Your task to perform on an android device: turn off data saver in the chrome app Image 0: 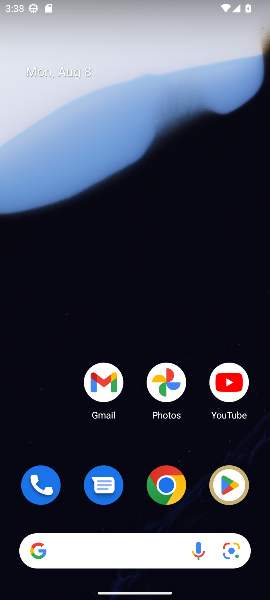
Step 0: drag from (83, 154) to (82, 120)
Your task to perform on an android device: turn off data saver in the chrome app Image 1: 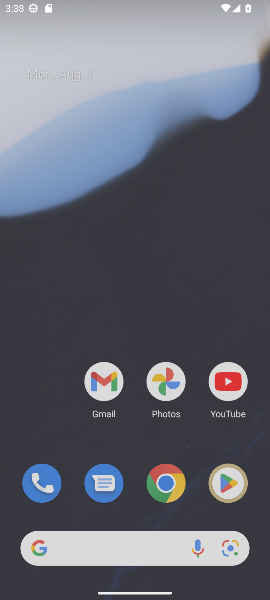
Step 1: click (136, 70)
Your task to perform on an android device: turn off data saver in the chrome app Image 2: 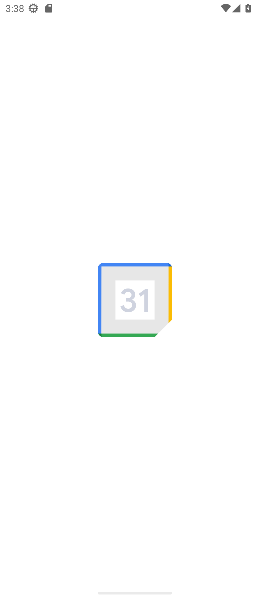
Step 2: drag from (132, 508) to (132, 83)
Your task to perform on an android device: turn off data saver in the chrome app Image 3: 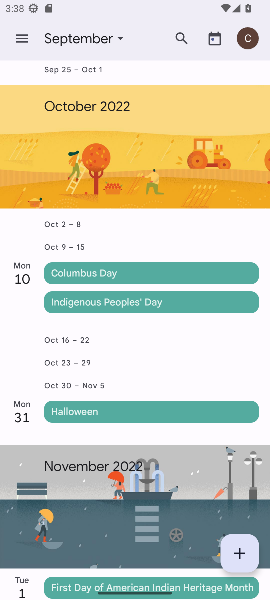
Step 3: press back button
Your task to perform on an android device: turn off data saver in the chrome app Image 4: 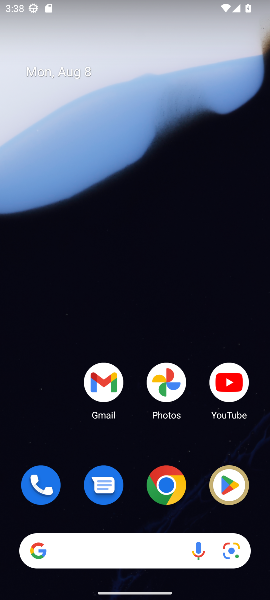
Step 4: drag from (152, 313) to (102, 42)
Your task to perform on an android device: turn off data saver in the chrome app Image 5: 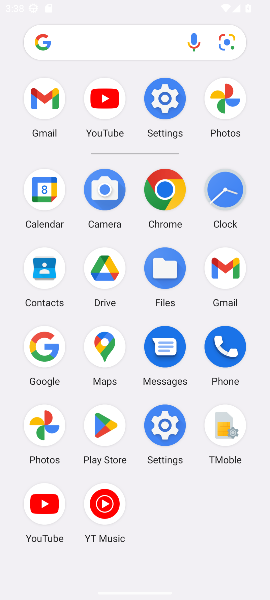
Step 5: drag from (146, 355) to (113, 36)
Your task to perform on an android device: turn off data saver in the chrome app Image 6: 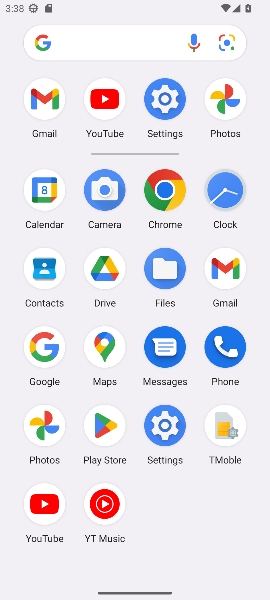
Step 6: click (158, 188)
Your task to perform on an android device: turn off data saver in the chrome app Image 7: 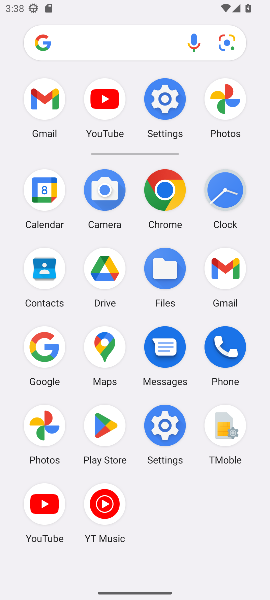
Step 7: click (160, 181)
Your task to perform on an android device: turn off data saver in the chrome app Image 8: 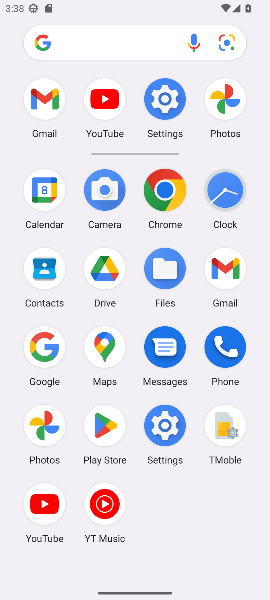
Step 8: click (161, 181)
Your task to perform on an android device: turn off data saver in the chrome app Image 9: 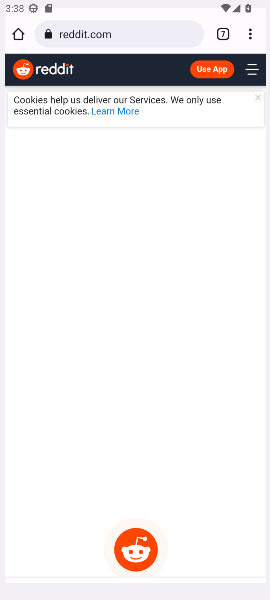
Step 9: click (165, 180)
Your task to perform on an android device: turn off data saver in the chrome app Image 10: 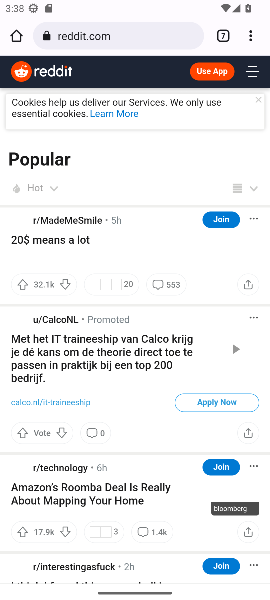
Step 10: click (165, 180)
Your task to perform on an android device: turn off data saver in the chrome app Image 11: 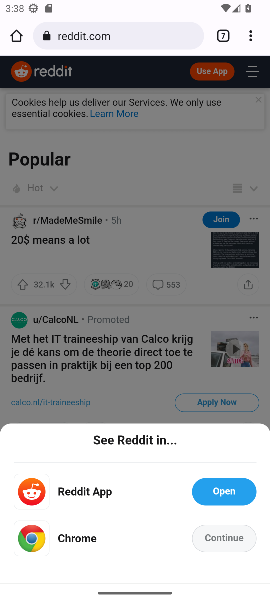
Step 11: click (251, 37)
Your task to perform on an android device: turn off data saver in the chrome app Image 12: 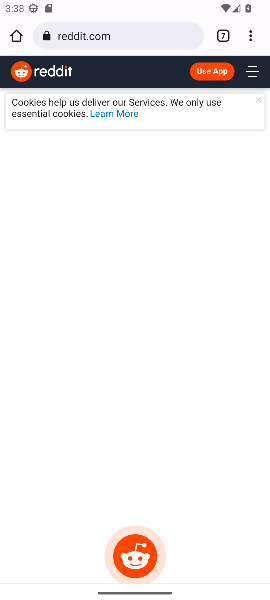
Step 12: drag from (243, 41) to (140, 456)
Your task to perform on an android device: turn off data saver in the chrome app Image 13: 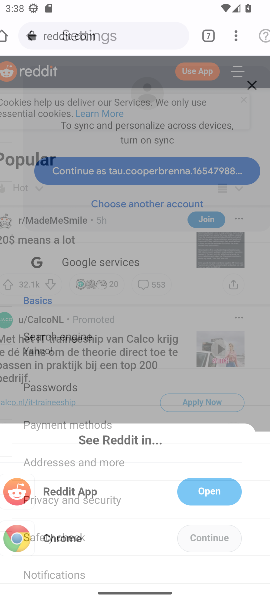
Step 13: click (141, 456)
Your task to perform on an android device: turn off data saver in the chrome app Image 14: 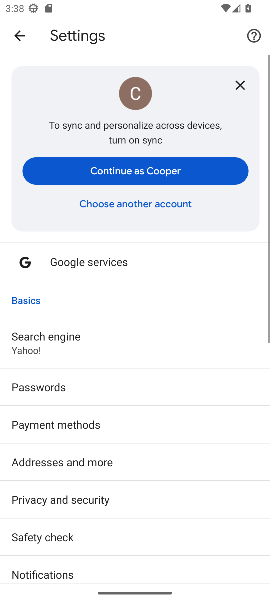
Step 14: click (141, 456)
Your task to perform on an android device: turn off data saver in the chrome app Image 15: 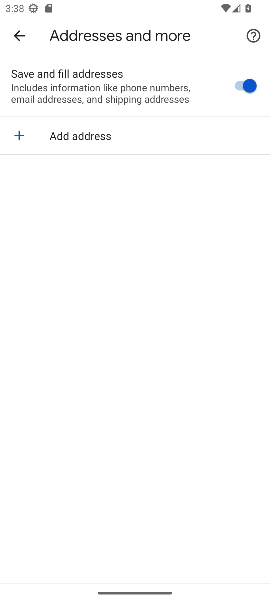
Step 15: click (19, 38)
Your task to perform on an android device: turn off data saver in the chrome app Image 16: 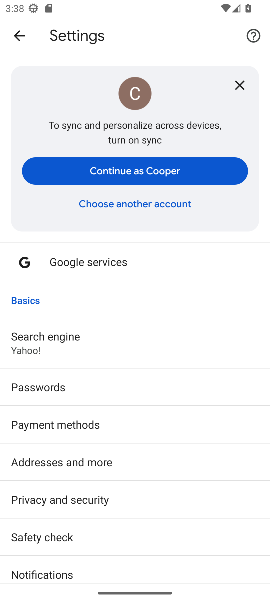
Step 16: task complete